Your task to perform on an android device: Go to Maps Image 0: 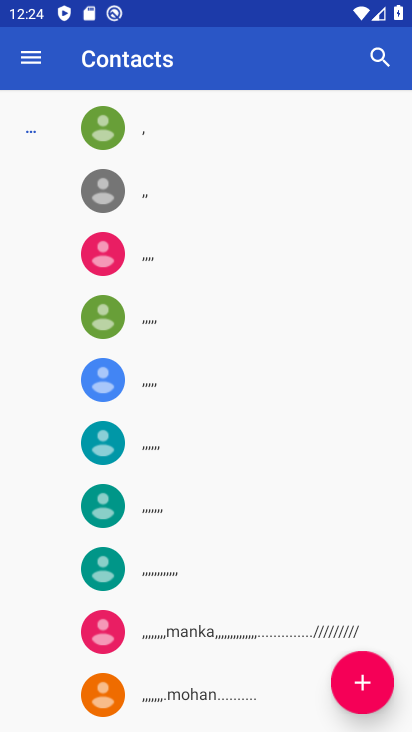
Step 0: press home button
Your task to perform on an android device: Go to Maps Image 1: 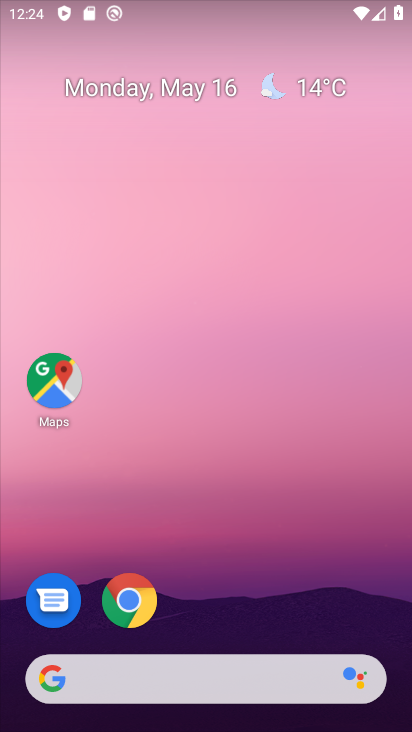
Step 1: click (56, 373)
Your task to perform on an android device: Go to Maps Image 2: 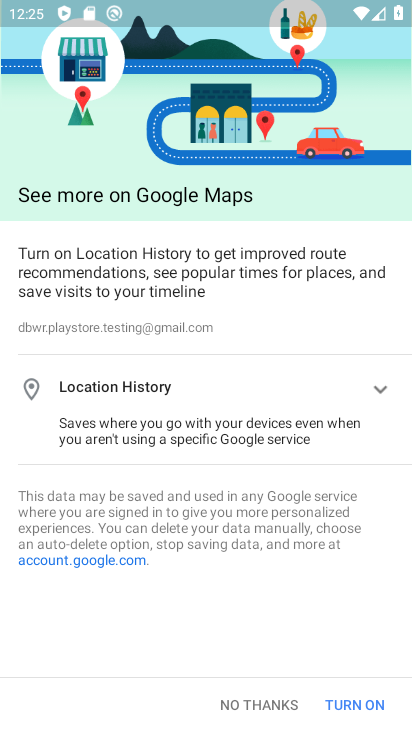
Step 2: click (246, 705)
Your task to perform on an android device: Go to Maps Image 3: 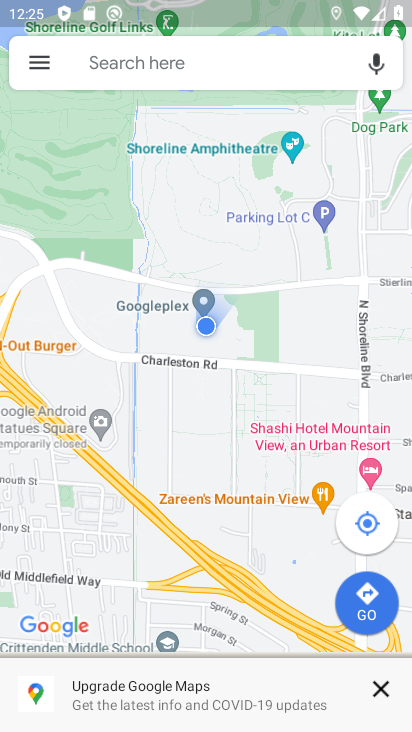
Step 3: task complete